Your task to perform on an android device: turn off smart reply in the gmail app Image 0: 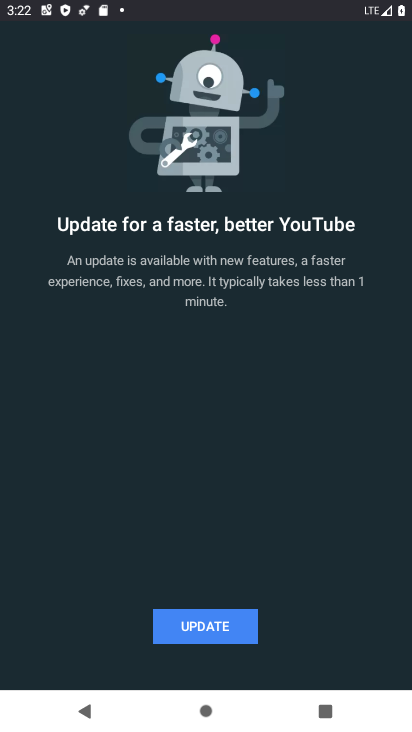
Step 0: press back button
Your task to perform on an android device: turn off smart reply in the gmail app Image 1: 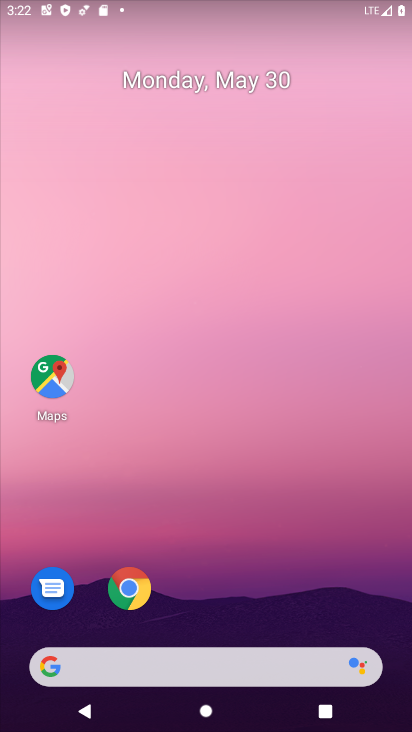
Step 1: drag from (264, 535) to (285, 0)
Your task to perform on an android device: turn off smart reply in the gmail app Image 2: 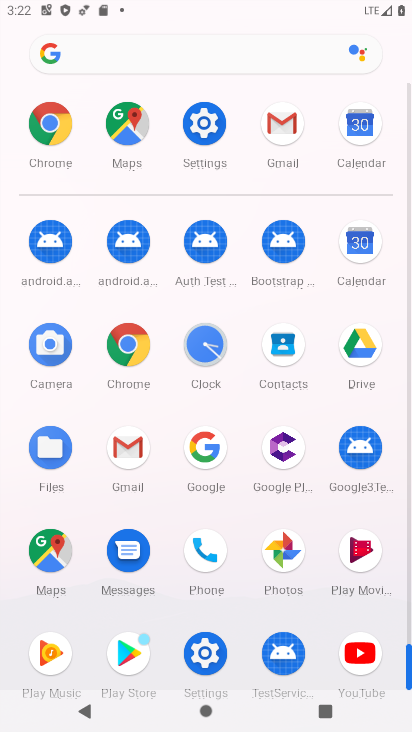
Step 2: drag from (6, 553) to (20, 264)
Your task to perform on an android device: turn off smart reply in the gmail app Image 3: 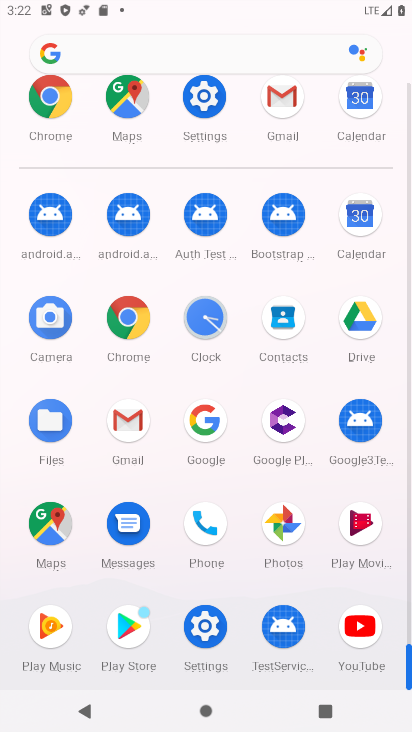
Step 3: click (118, 415)
Your task to perform on an android device: turn off smart reply in the gmail app Image 4: 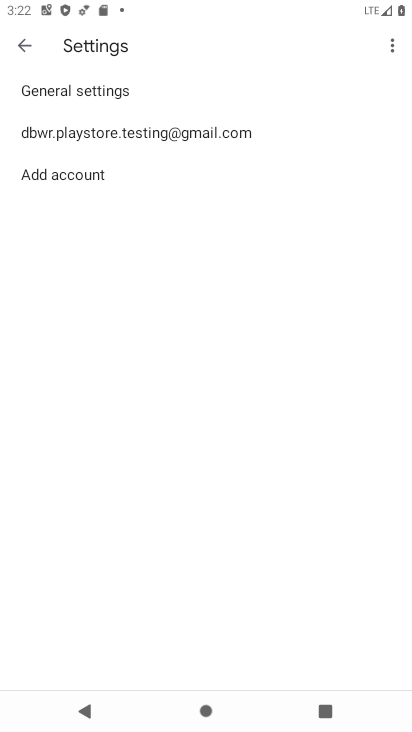
Step 4: click (30, 48)
Your task to perform on an android device: turn off smart reply in the gmail app Image 5: 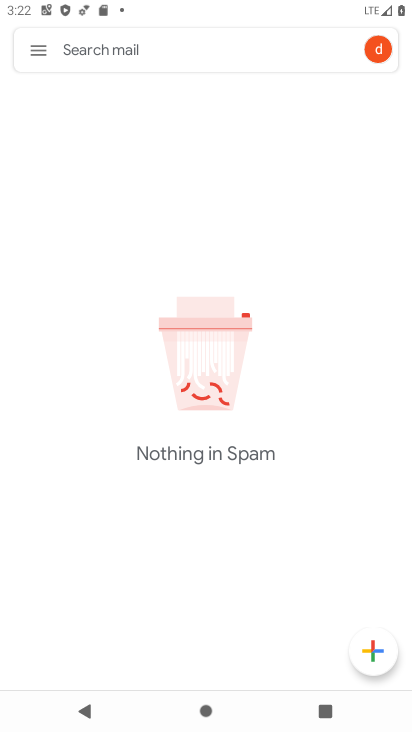
Step 5: click (37, 52)
Your task to perform on an android device: turn off smart reply in the gmail app Image 6: 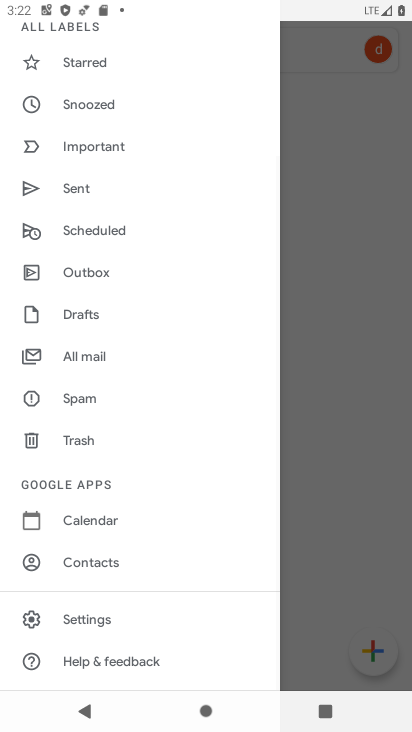
Step 6: click (119, 617)
Your task to perform on an android device: turn off smart reply in the gmail app Image 7: 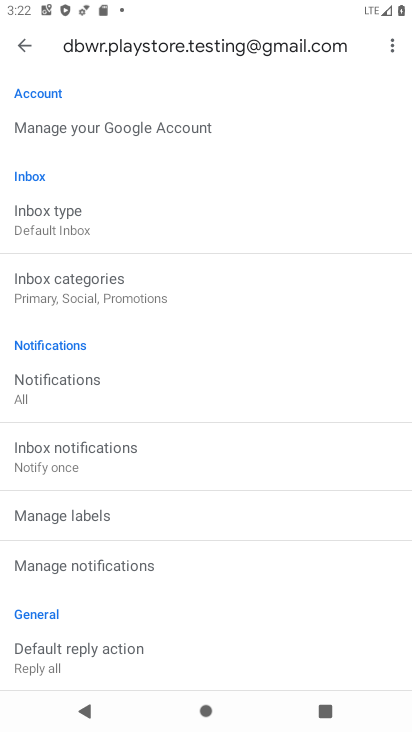
Step 7: drag from (241, 523) to (235, 103)
Your task to perform on an android device: turn off smart reply in the gmail app Image 8: 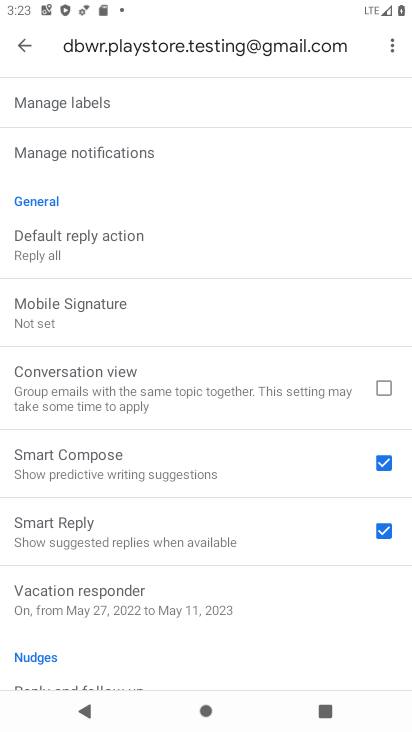
Step 8: click (381, 536)
Your task to perform on an android device: turn off smart reply in the gmail app Image 9: 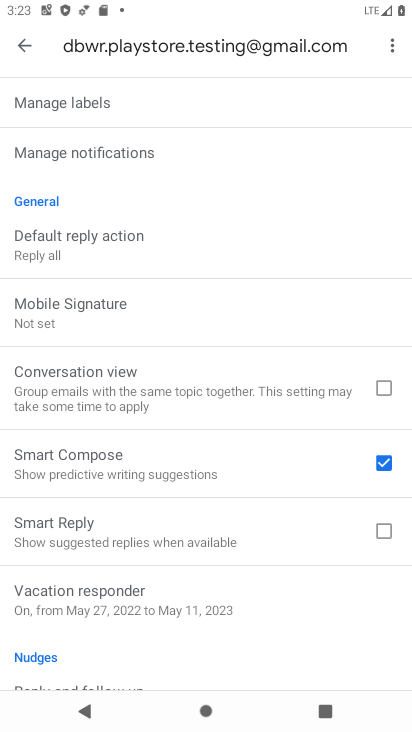
Step 9: task complete